Your task to perform on an android device: Go to internet settings Image 0: 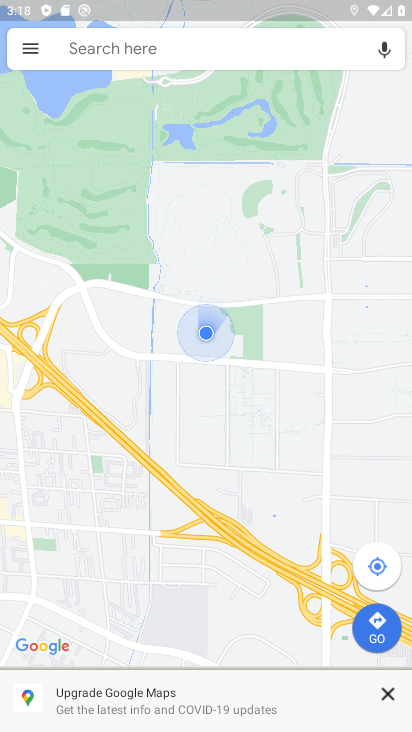
Step 0: press home button
Your task to perform on an android device: Go to internet settings Image 1: 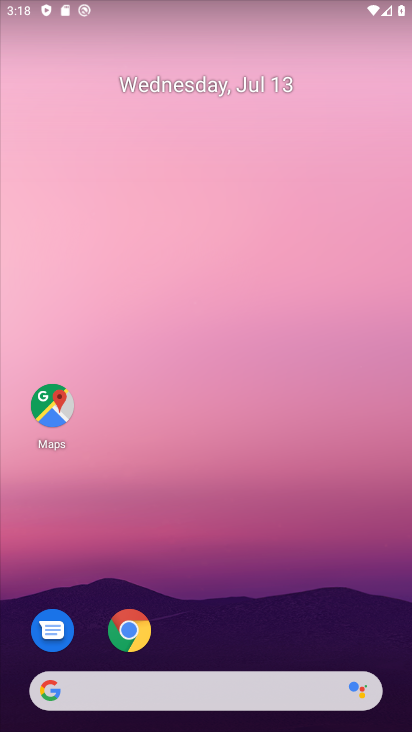
Step 1: drag from (226, 549) to (189, 104)
Your task to perform on an android device: Go to internet settings Image 2: 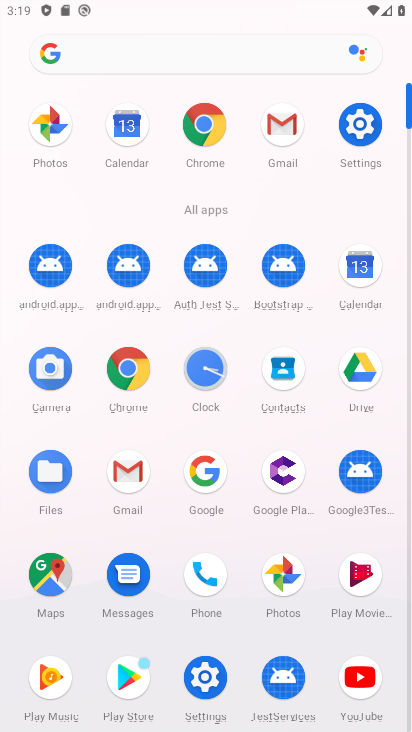
Step 2: click (358, 126)
Your task to perform on an android device: Go to internet settings Image 3: 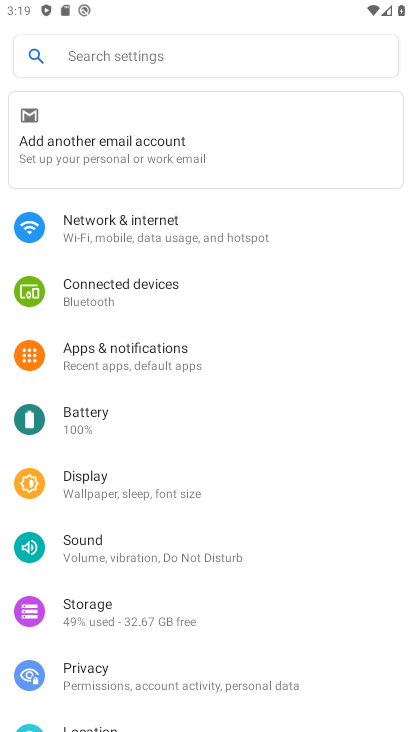
Step 3: click (134, 215)
Your task to perform on an android device: Go to internet settings Image 4: 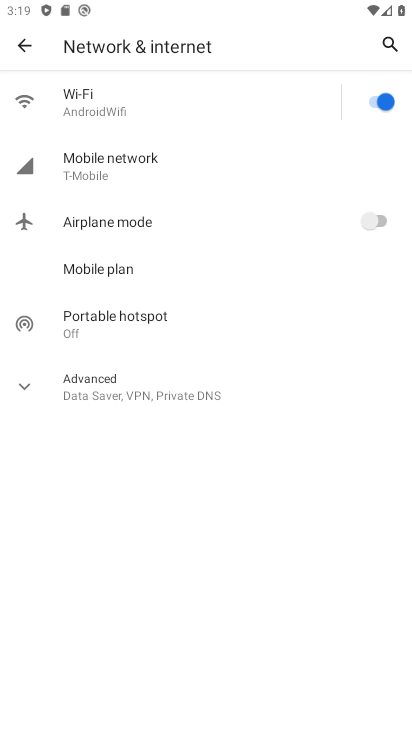
Step 4: click (88, 145)
Your task to perform on an android device: Go to internet settings Image 5: 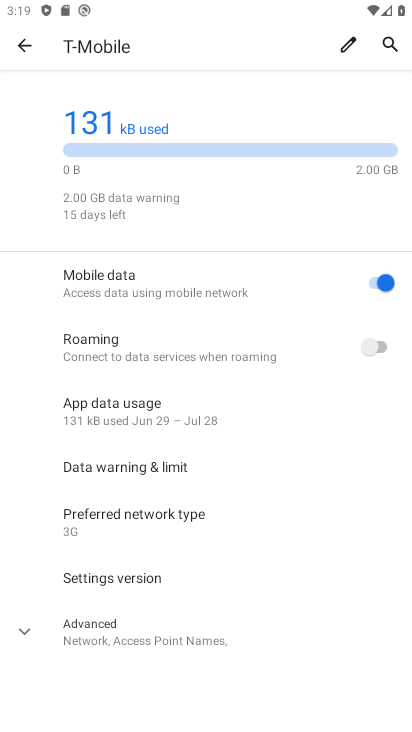
Step 5: task complete